Your task to perform on an android device: turn on the 12-hour format for clock Image 0: 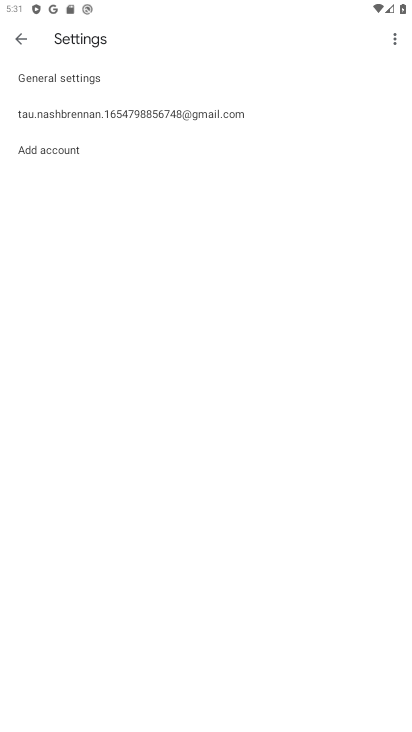
Step 0: press home button
Your task to perform on an android device: turn on the 12-hour format for clock Image 1: 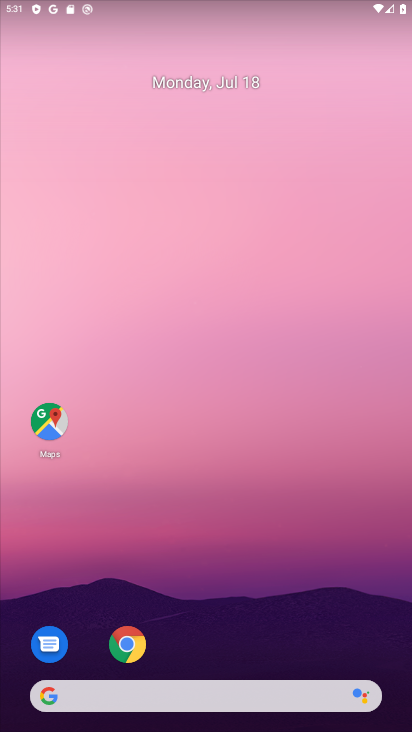
Step 1: drag from (328, 518) to (385, 166)
Your task to perform on an android device: turn on the 12-hour format for clock Image 2: 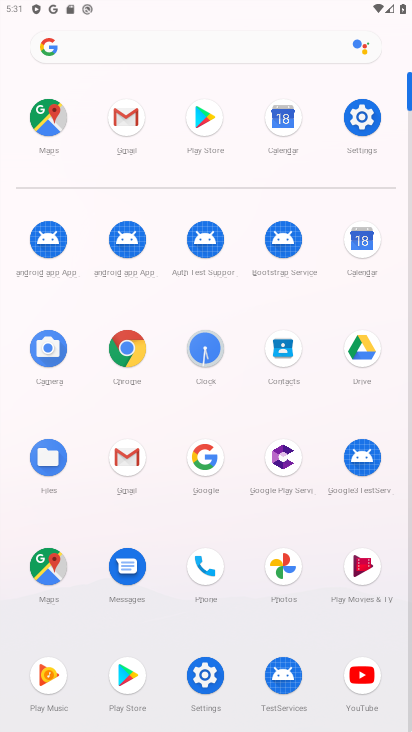
Step 2: click (213, 339)
Your task to perform on an android device: turn on the 12-hour format for clock Image 3: 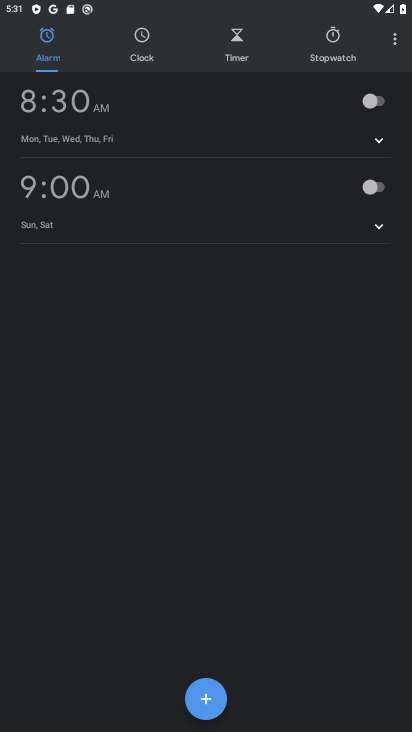
Step 3: click (400, 45)
Your task to perform on an android device: turn on the 12-hour format for clock Image 4: 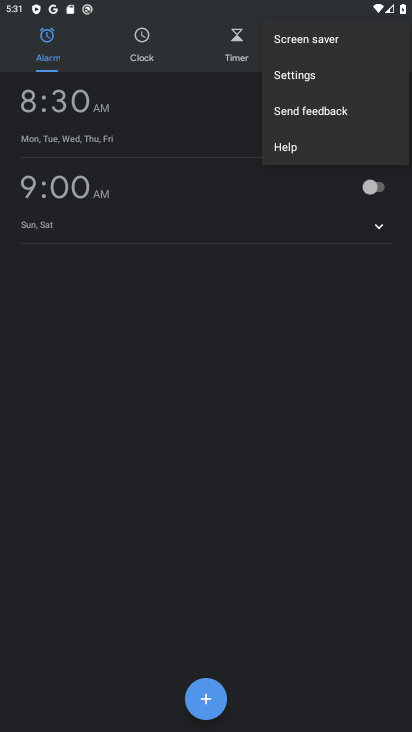
Step 4: click (280, 73)
Your task to perform on an android device: turn on the 12-hour format for clock Image 5: 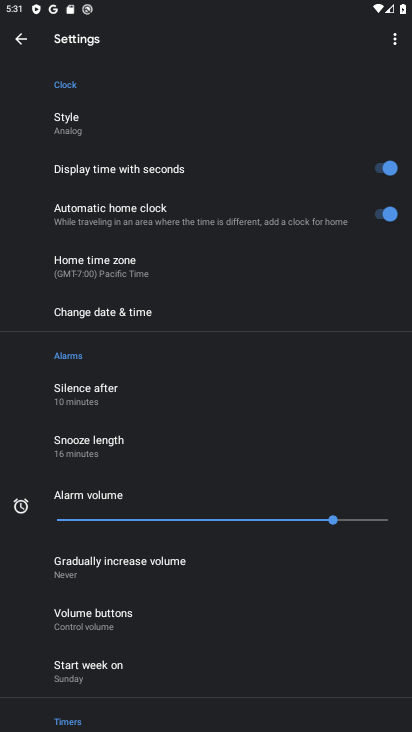
Step 5: click (110, 317)
Your task to perform on an android device: turn on the 12-hour format for clock Image 6: 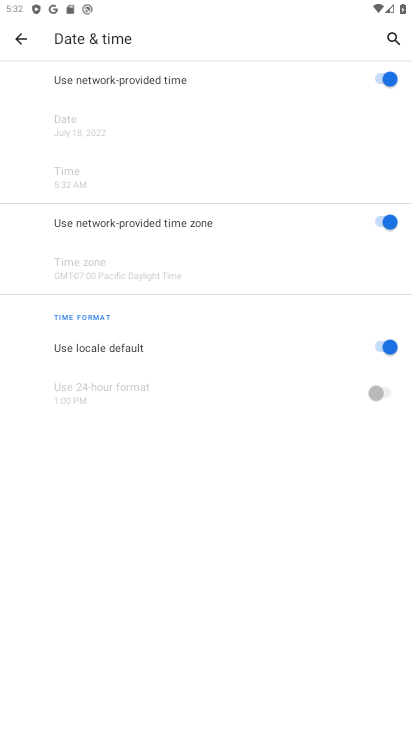
Step 6: task complete